Your task to perform on an android device: turn on the 12-hour format for clock Image 0: 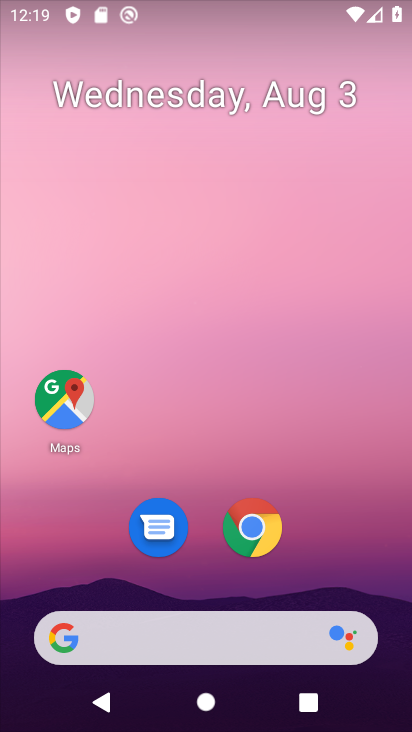
Step 0: drag from (164, 626) to (264, 173)
Your task to perform on an android device: turn on the 12-hour format for clock Image 1: 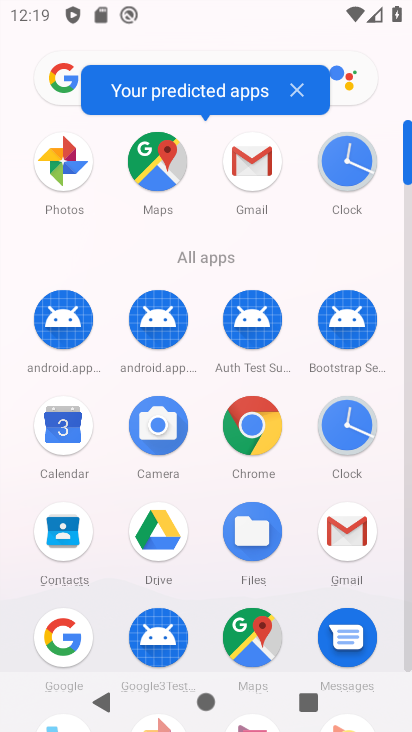
Step 1: click (351, 171)
Your task to perform on an android device: turn on the 12-hour format for clock Image 2: 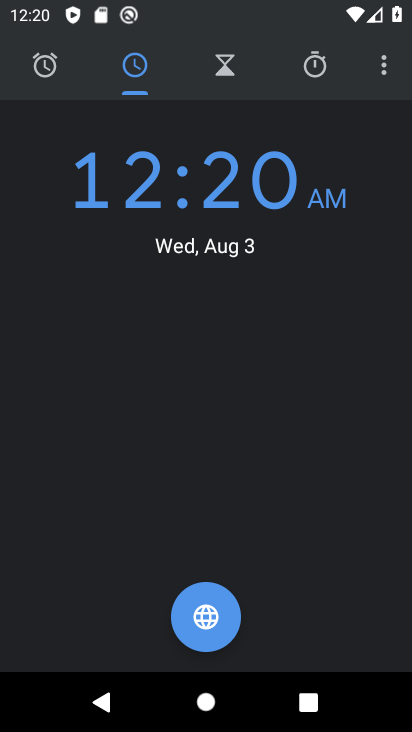
Step 2: click (389, 70)
Your task to perform on an android device: turn on the 12-hour format for clock Image 3: 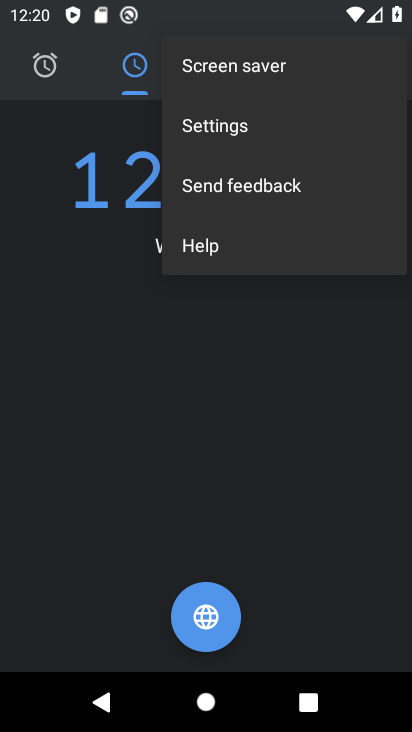
Step 3: click (229, 126)
Your task to perform on an android device: turn on the 12-hour format for clock Image 4: 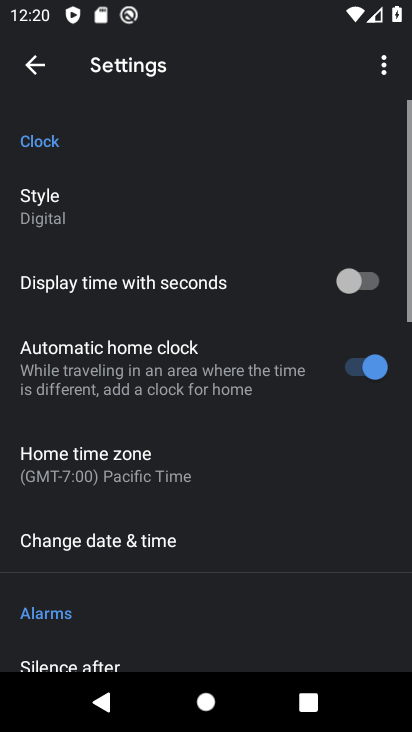
Step 4: drag from (231, 518) to (301, 168)
Your task to perform on an android device: turn on the 12-hour format for clock Image 5: 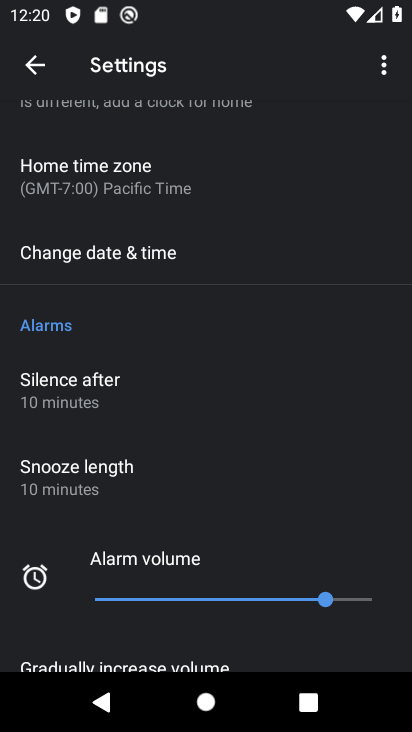
Step 5: click (135, 254)
Your task to perform on an android device: turn on the 12-hour format for clock Image 6: 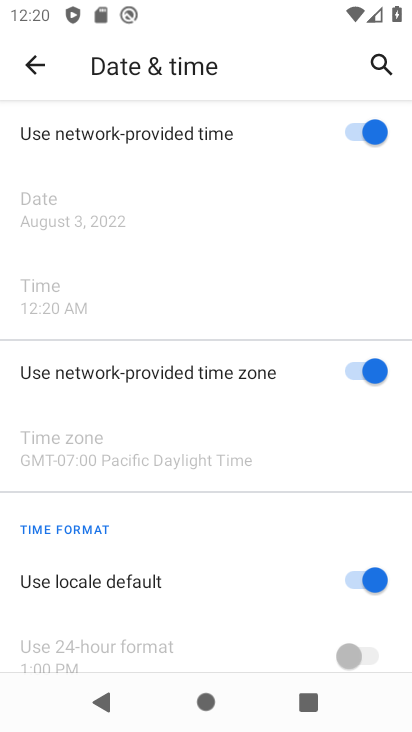
Step 6: task complete